Your task to perform on an android device: Open Google Chrome Image 0: 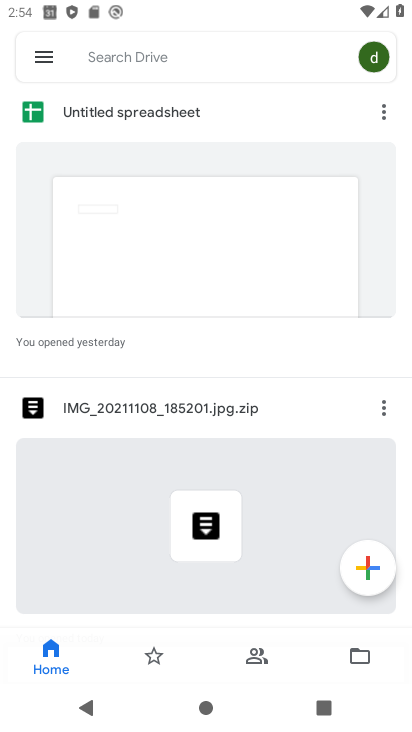
Step 0: press back button
Your task to perform on an android device: Open Google Chrome Image 1: 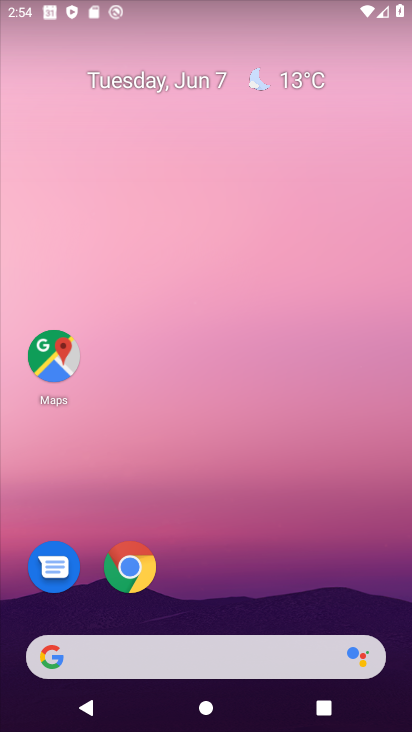
Step 1: drag from (252, 522) to (286, 112)
Your task to perform on an android device: Open Google Chrome Image 2: 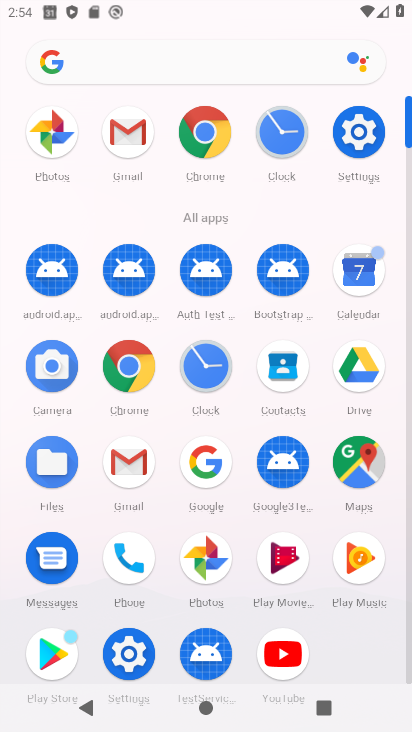
Step 2: click (208, 120)
Your task to perform on an android device: Open Google Chrome Image 3: 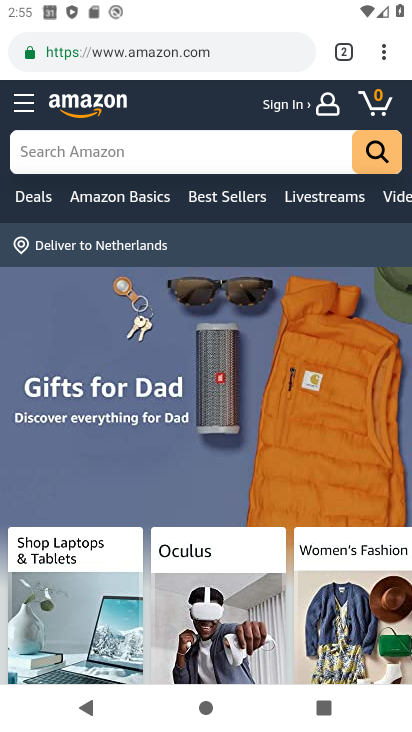
Step 3: task complete